Your task to perform on an android device: toggle notification dots Image 0: 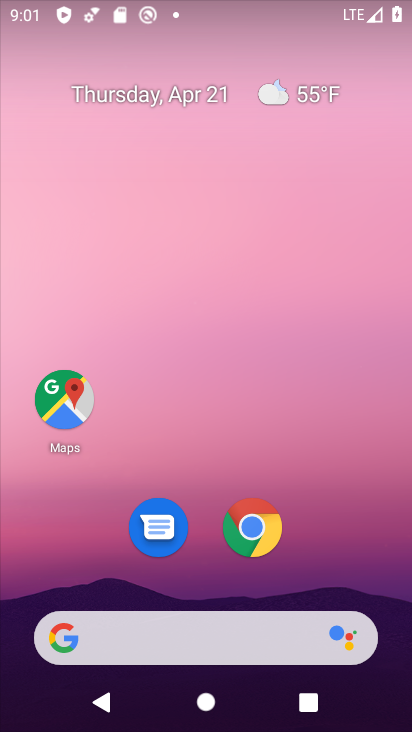
Step 0: drag from (202, 543) to (236, 77)
Your task to perform on an android device: toggle notification dots Image 1: 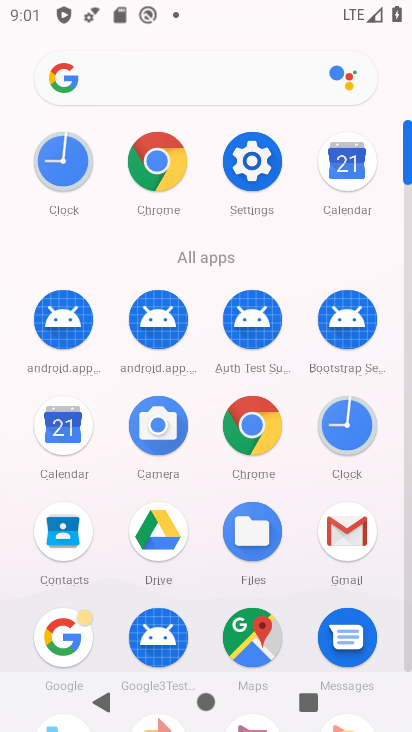
Step 1: drag from (206, 576) to (265, 170)
Your task to perform on an android device: toggle notification dots Image 2: 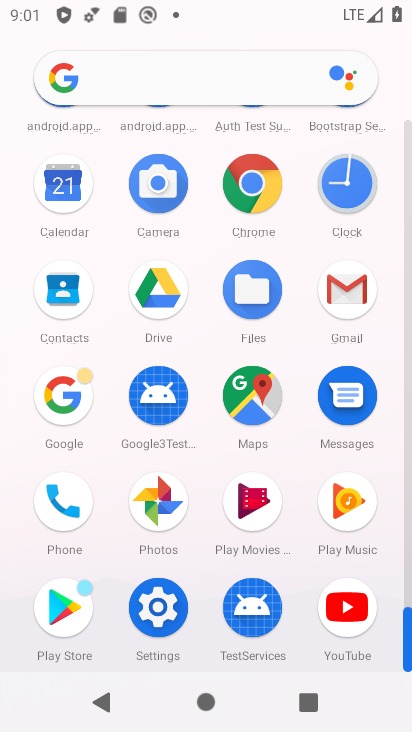
Step 2: click (154, 601)
Your task to perform on an android device: toggle notification dots Image 3: 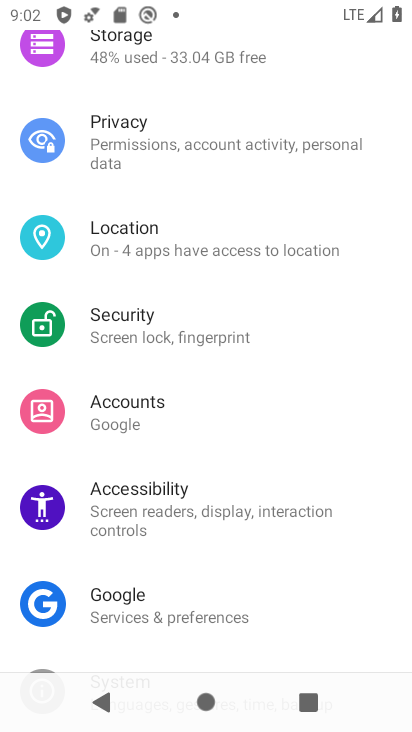
Step 3: drag from (172, 125) to (174, 613)
Your task to perform on an android device: toggle notification dots Image 4: 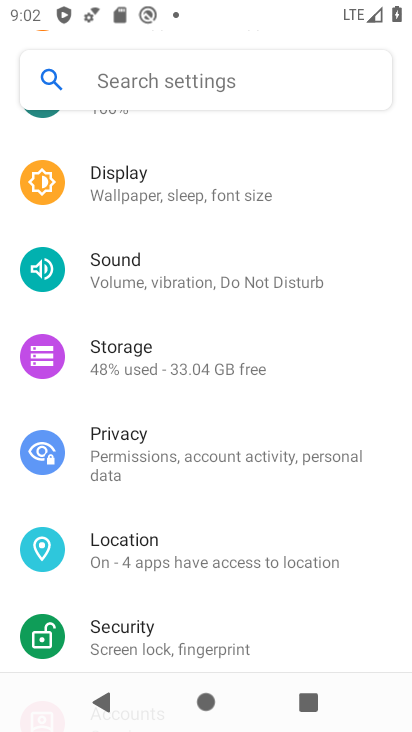
Step 4: drag from (165, 208) to (170, 731)
Your task to perform on an android device: toggle notification dots Image 5: 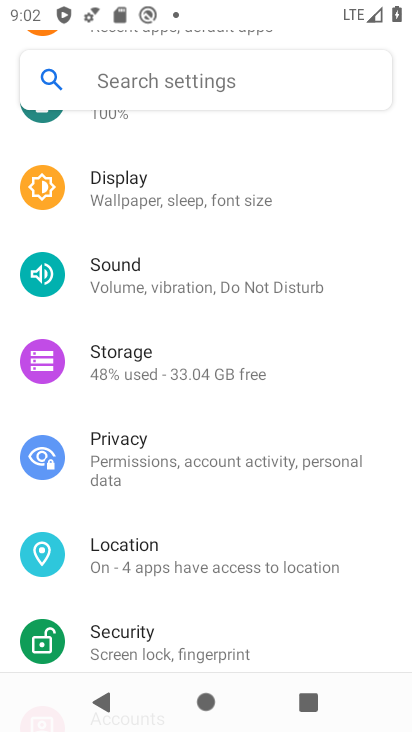
Step 5: drag from (166, 255) to (154, 724)
Your task to perform on an android device: toggle notification dots Image 6: 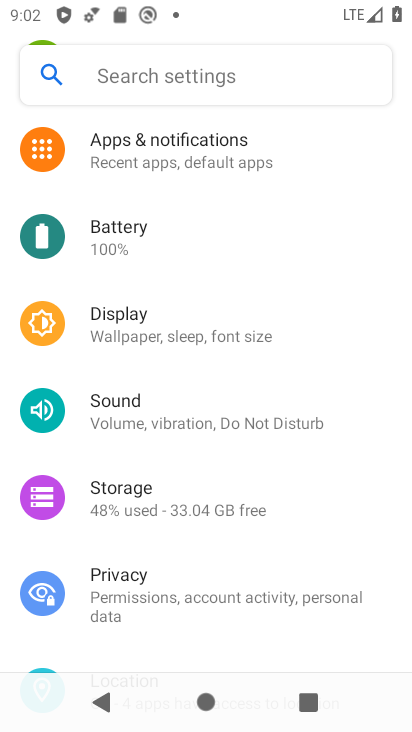
Step 6: click (191, 147)
Your task to perform on an android device: toggle notification dots Image 7: 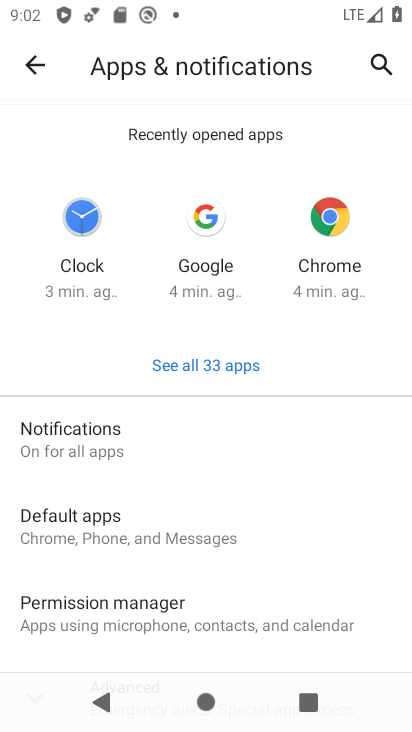
Step 7: click (143, 431)
Your task to perform on an android device: toggle notification dots Image 8: 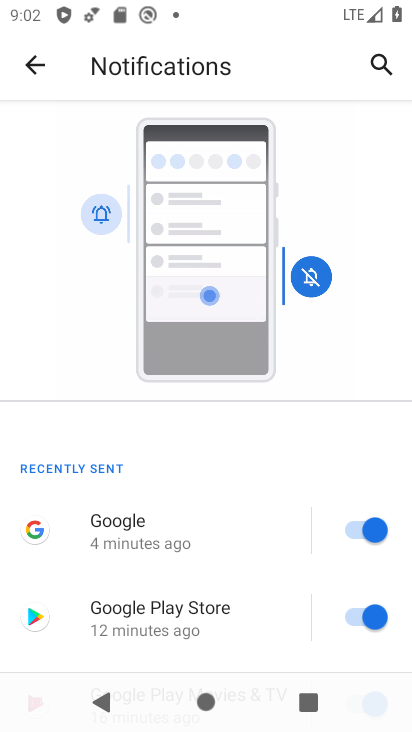
Step 8: drag from (232, 618) to (275, 256)
Your task to perform on an android device: toggle notification dots Image 9: 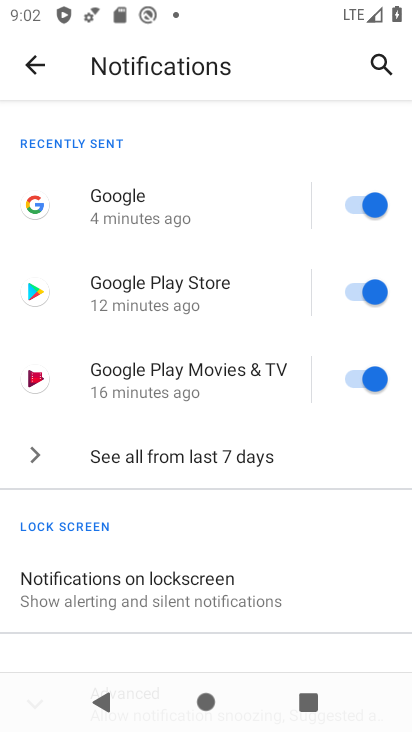
Step 9: drag from (235, 604) to (279, 278)
Your task to perform on an android device: toggle notification dots Image 10: 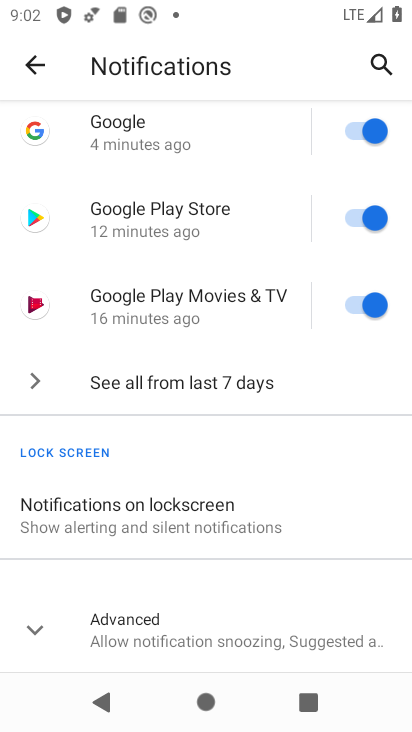
Step 10: click (35, 629)
Your task to perform on an android device: toggle notification dots Image 11: 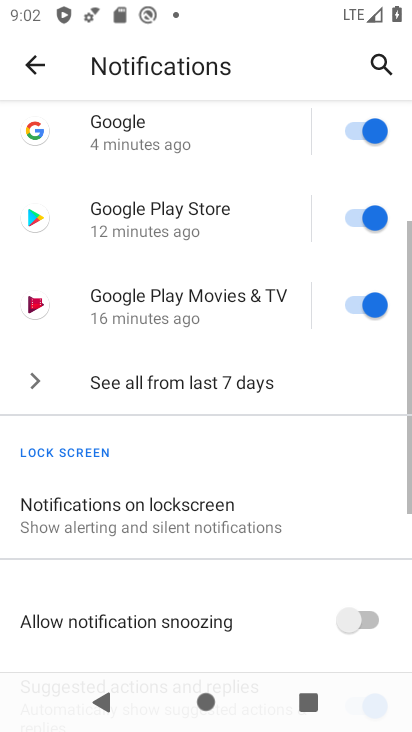
Step 11: drag from (179, 614) to (234, 144)
Your task to perform on an android device: toggle notification dots Image 12: 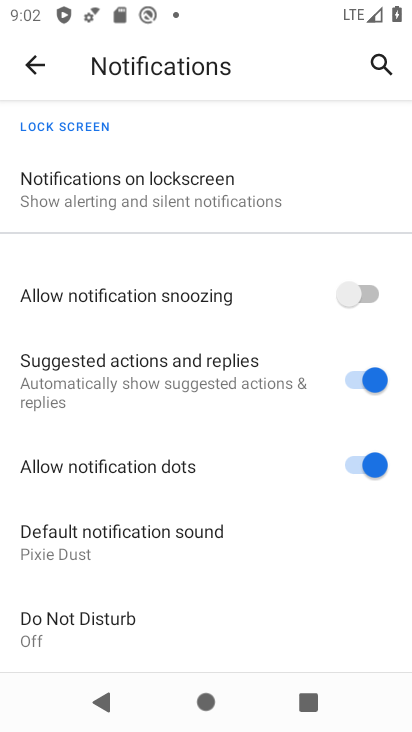
Step 12: click (355, 464)
Your task to perform on an android device: toggle notification dots Image 13: 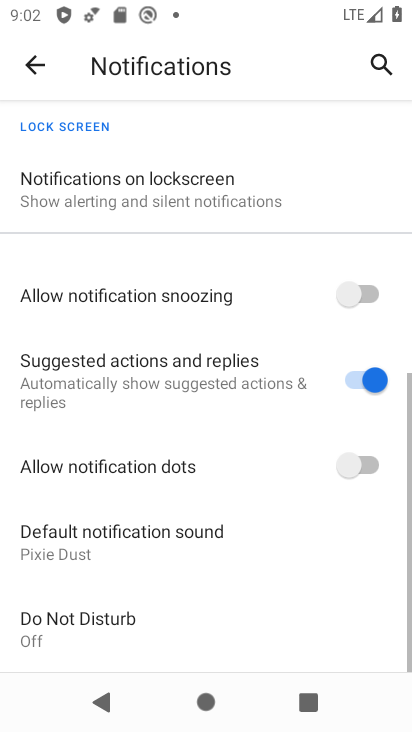
Step 13: task complete